Your task to perform on an android device: Is it going to rain this weekend? Image 0: 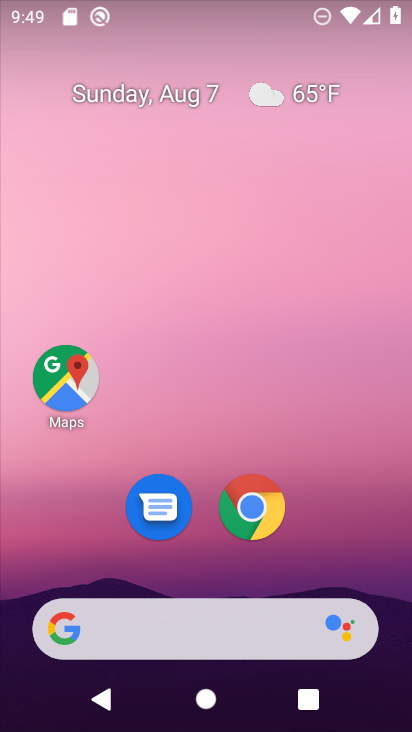
Step 0: click (297, 96)
Your task to perform on an android device: Is it going to rain this weekend? Image 1: 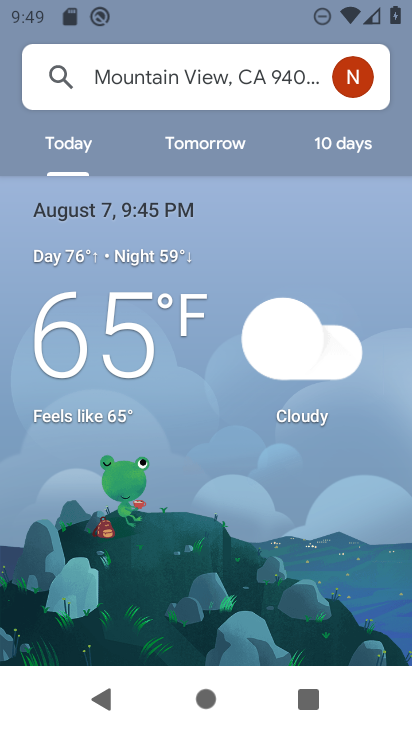
Step 1: click (328, 154)
Your task to perform on an android device: Is it going to rain this weekend? Image 2: 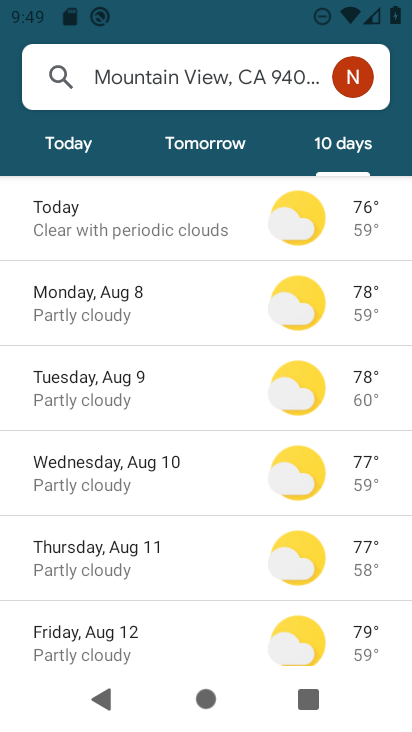
Step 2: click (112, 217)
Your task to perform on an android device: Is it going to rain this weekend? Image 3: 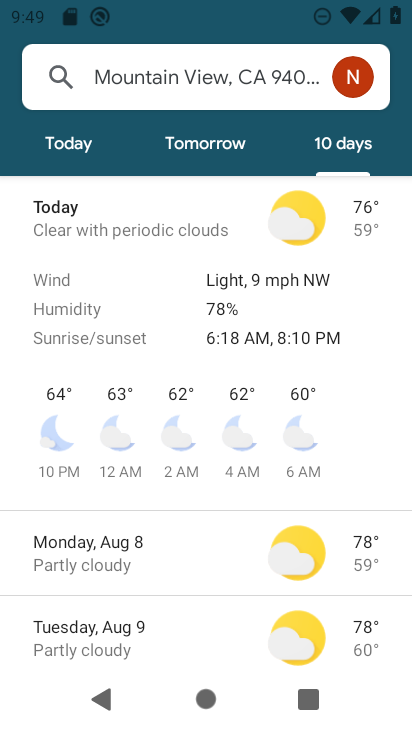
Step 3: task complete